Your task to perform on an android device: Open my contact list Image 0: 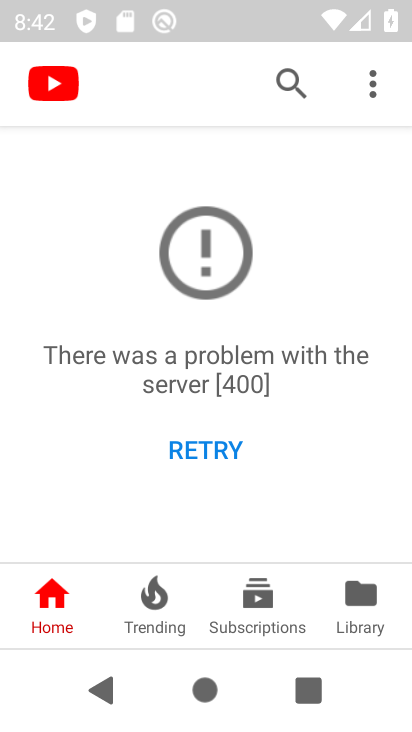
Step 0: press home button
Your task to perform on an android device: Open my contact list Image 1: 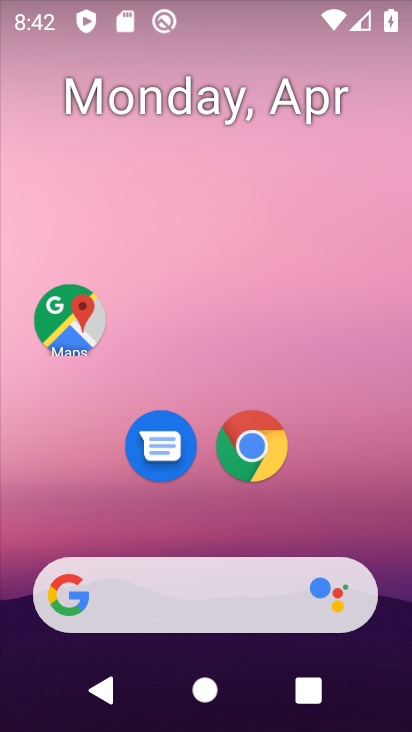
Step 1: click (410, 447)
Your task to perform on an android device: Open my contact list Image 2: 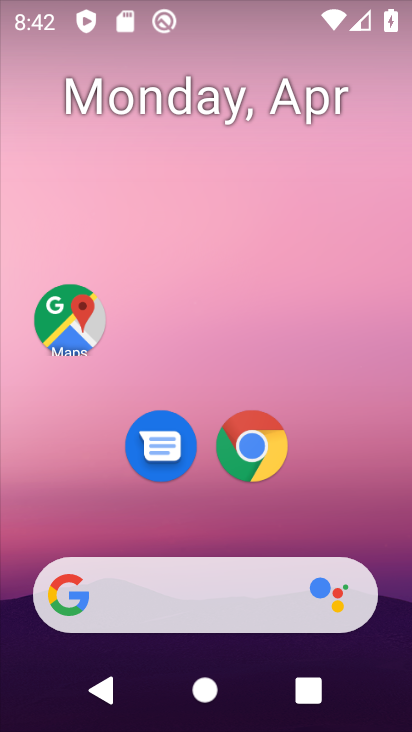
Step 2: drag from (337, 495) to (364, 86)
Your task to perform on an android device: Open my contact list Image 3: 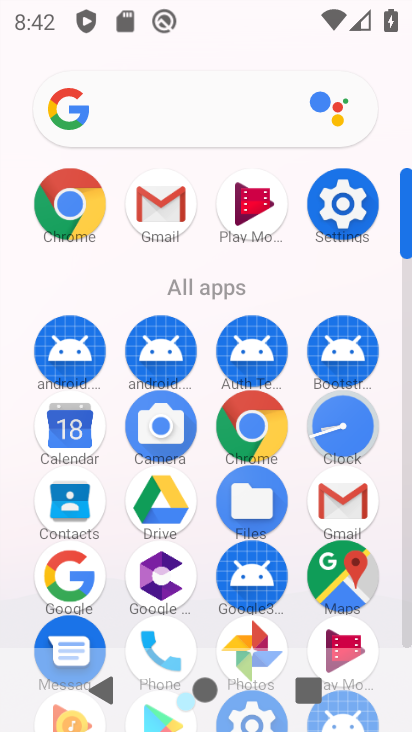
Step 3: click (71, 517)
Your task to perform on an android device: Open my contact list Image 4: 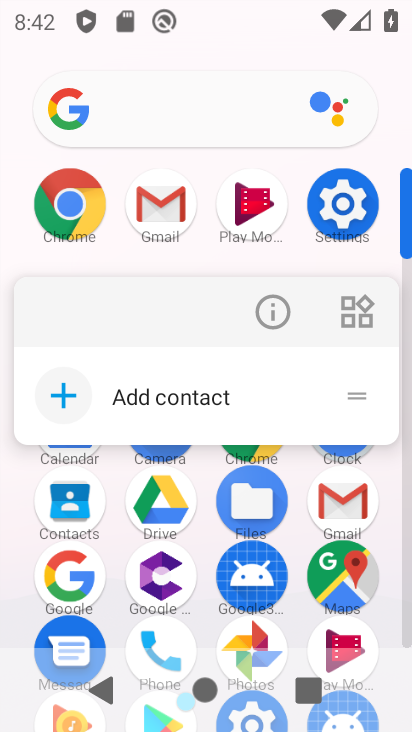
Step 4: click (72, 515)
Your task to perform on an android device: Open my contact list Image 5: 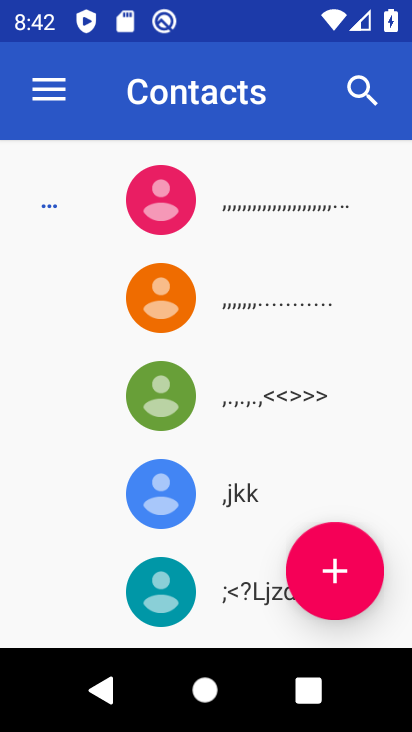
Step 5: task complete